Your task to perform on an android device: open wifi settings Image 0: 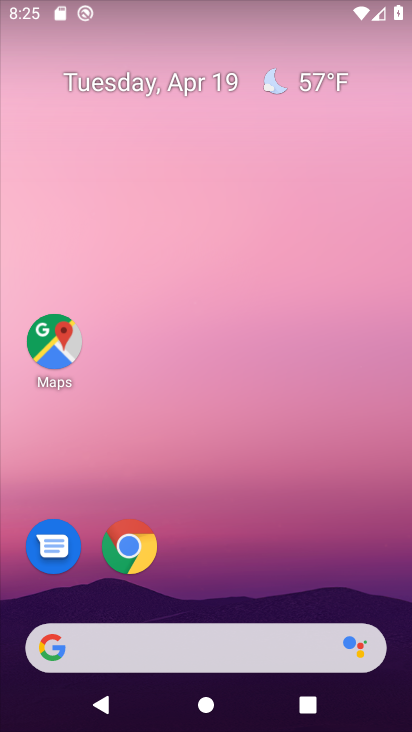
Step 0: drag from (229, 609) to (290, 10)
Your task to perform on an android device: open wifi settings Image 1: 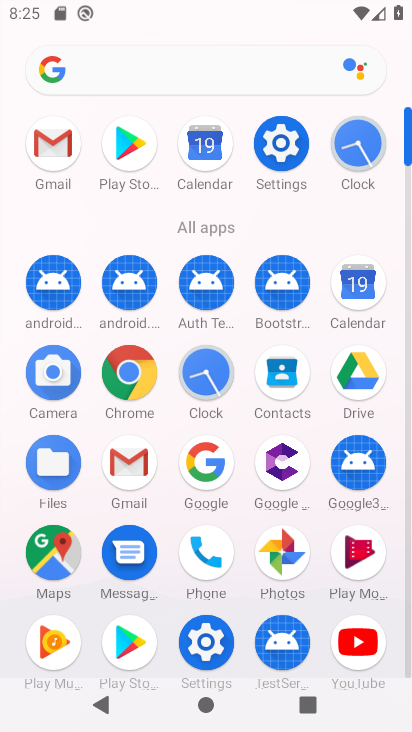
Step 1: click (272, 146)
Your task to perform on an android device: open wifi settings Image 2: 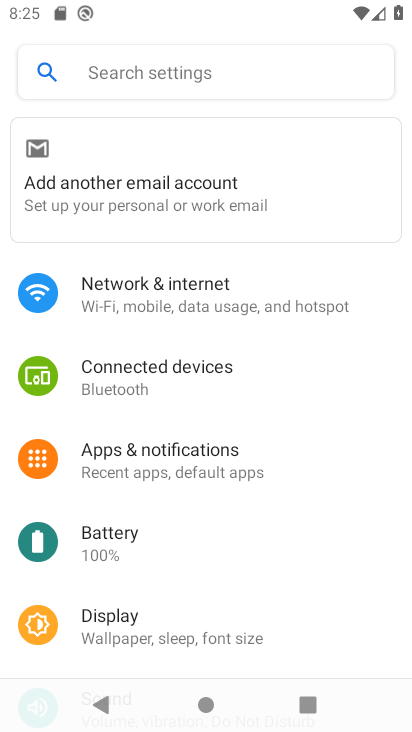
Step 2: click (159, 307)
Your task to perform on an android device: open wifi settings Image 3: 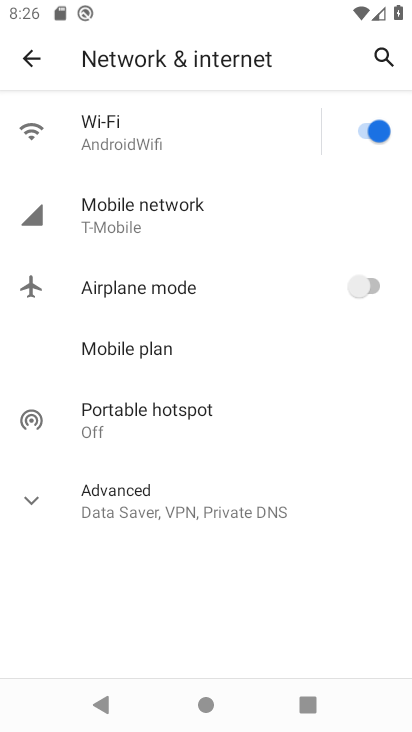
Step 3: click (146, 142)
Your task to perform on an android device: open wifi settings Image 4: 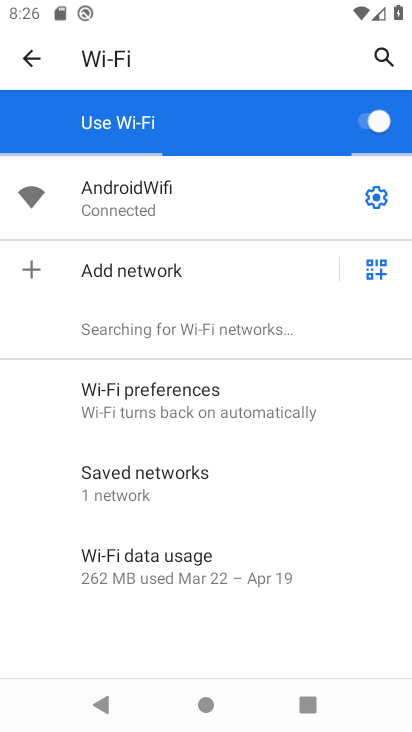
Step 4: task complete